Your task to perform on an android device: Go to Yahoo.com Image 0: 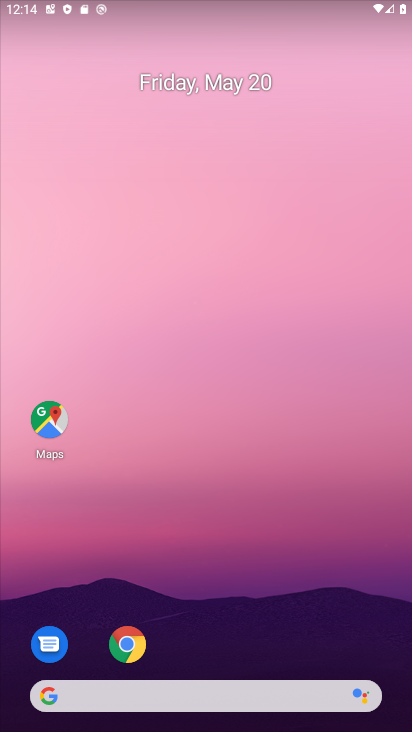
Step 0: click (134, 649)
Your task to perform on an android device: Go to Yahoo.com Image 1: 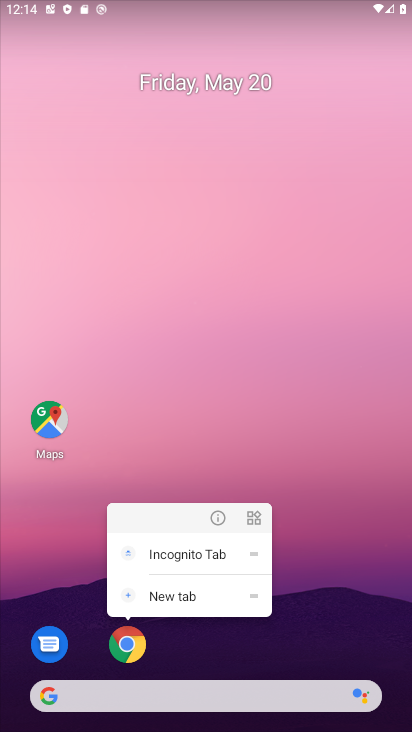
Step 1: click (134, 649)
Your task to perform on an android device: Go to Yahoo.com Image 2: 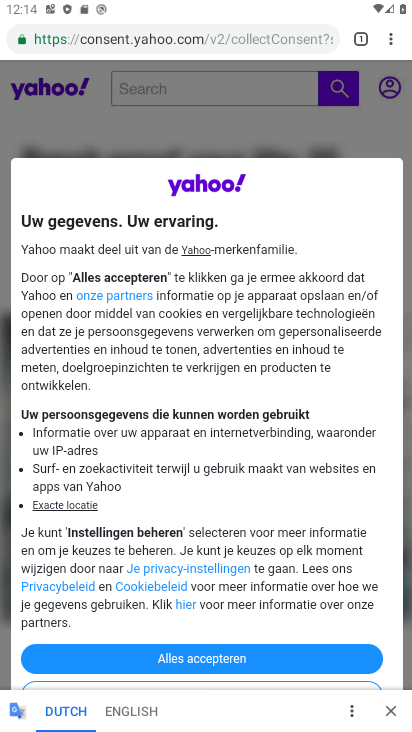
Step 2: task complete